Your task to perform on an android device: Do I have any events this weekend? Image 0: 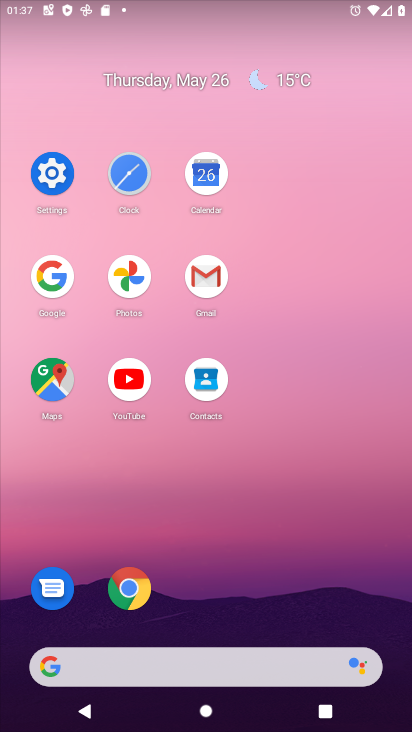
Step 0: click (217, 185)
Your task to perform on an android device: Do I have any events this weekend? Image 1: 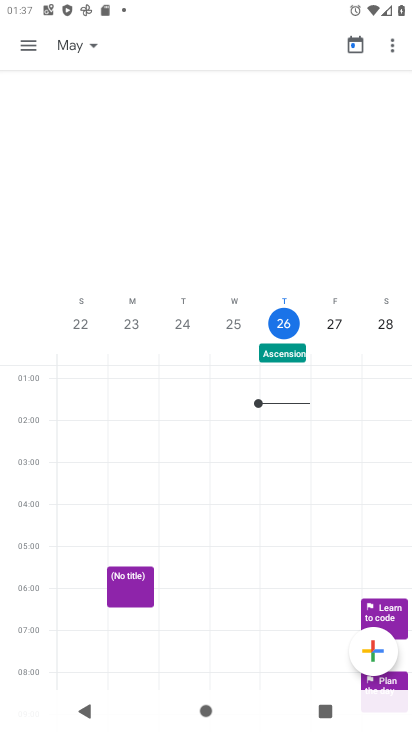
Step 1: click (378, 315)
Your task to perform on an android device: Do I have any events this weekend? Image 2: 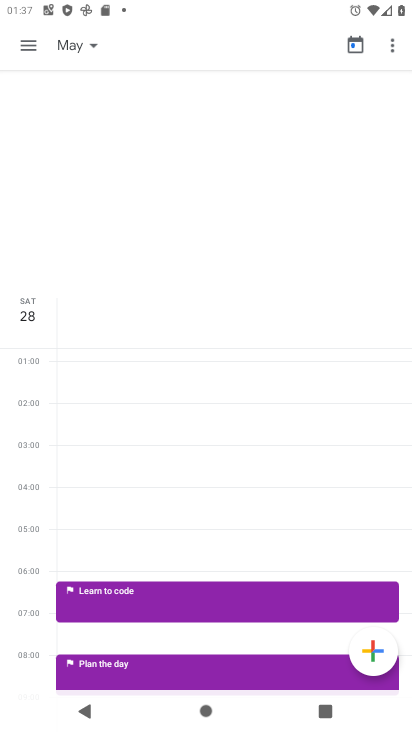
Step 2: task complete